Your task to perform on an android device: change the clock display to analog Image 0: 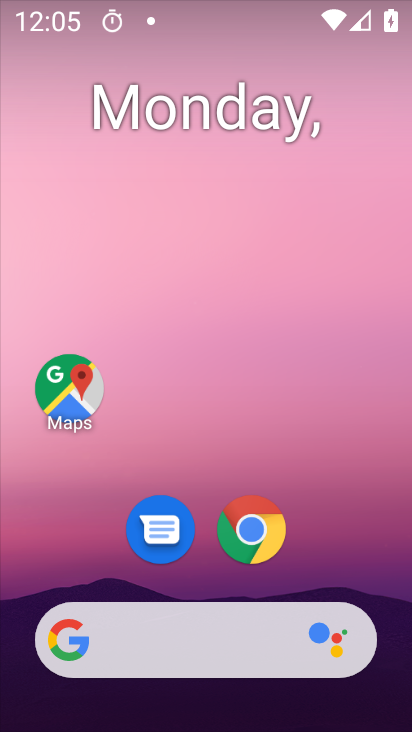
Step 0: drag from (381, 581) to (385, 206)
Your task to perform on an android device: change the clock display to analog Image 1: 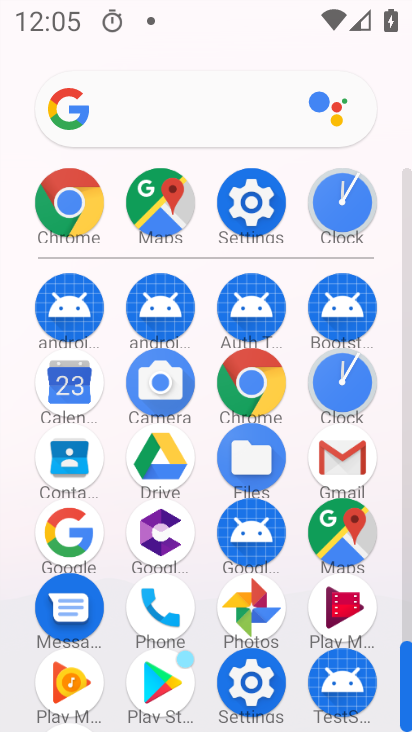
Step 1: click (337, 381)
Your task to perform on an android device: change the clock display to analog Image 2: 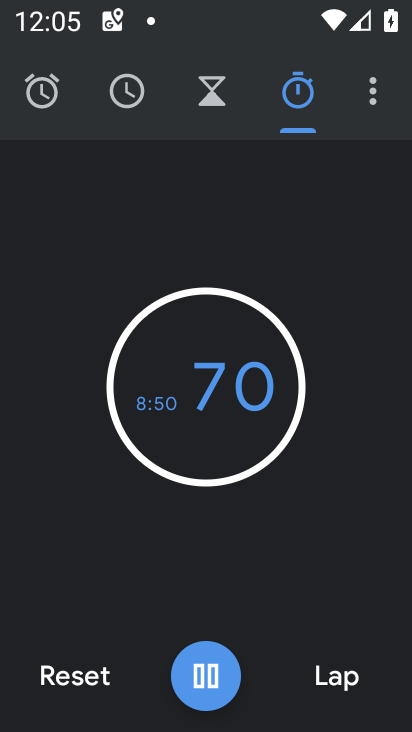
Step 2: click (379, 101)
Your task to perform on an android device: change the clock display to analog Image 3: 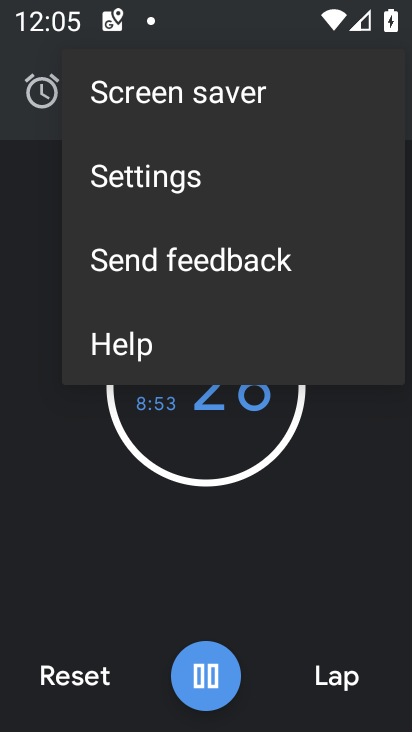
Step 3: click (250, 187)
Your task to perform on an android device: change the clock display to analog Image 4: 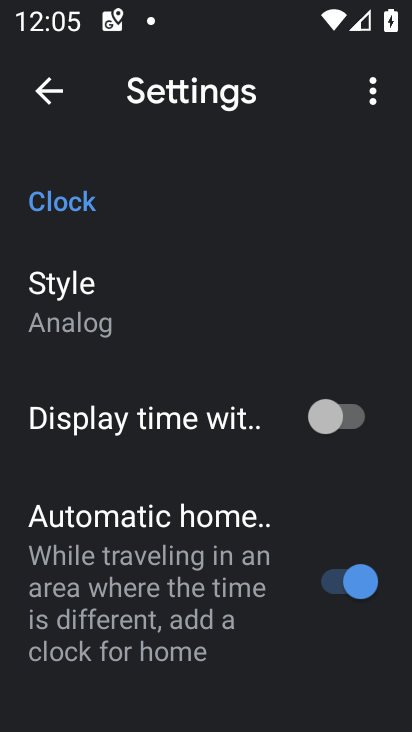
Step 4: task complete